Your task to perform on an android device: Do I have any events tomorrow? Image 0: 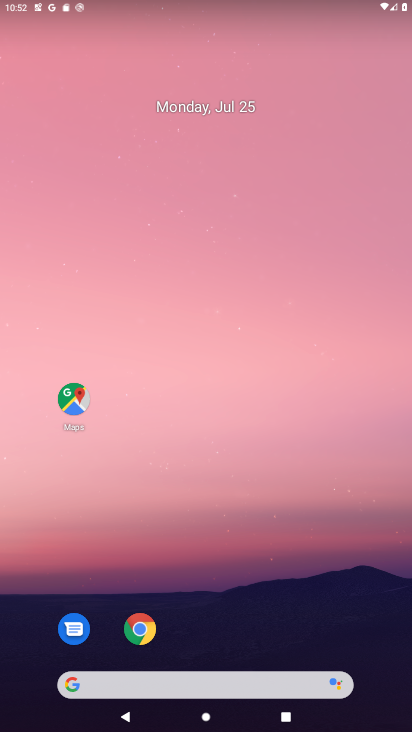
Step 0: click (175, 119)
Your task to perform on an android device: Do I have any events tomorrow? Image 1: 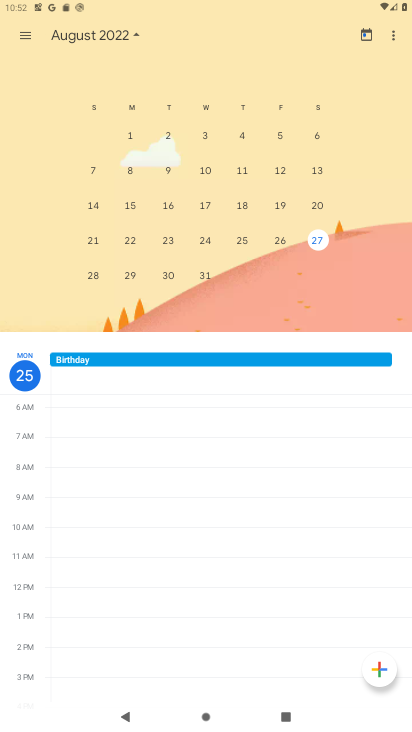
Step 1: task complete